Your task to perform on an android device: Go to ESPN.com Image 0: 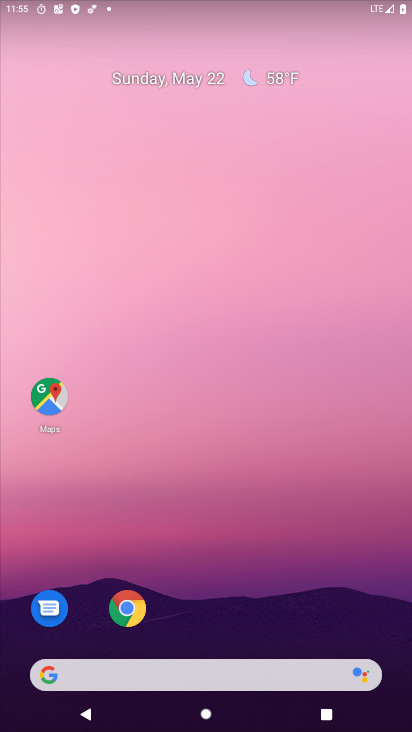
Step 0: click (139, 609)
Your task to perform on an android device: Go to ESPN.com Image 1: 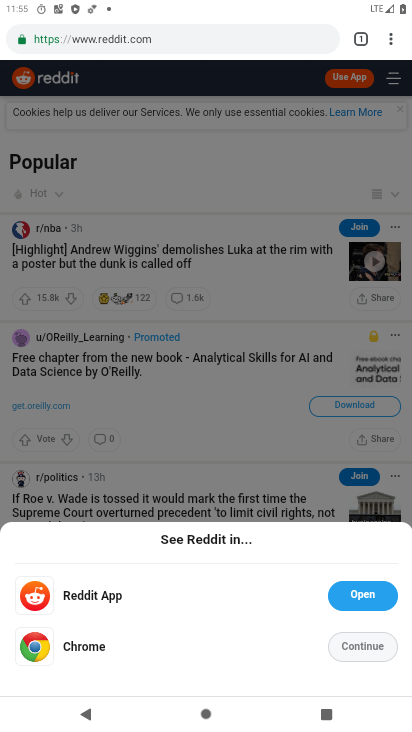
Step 1: click (177, 33)
Your task to perform on an android device: Go to ESPN.com Image 2: 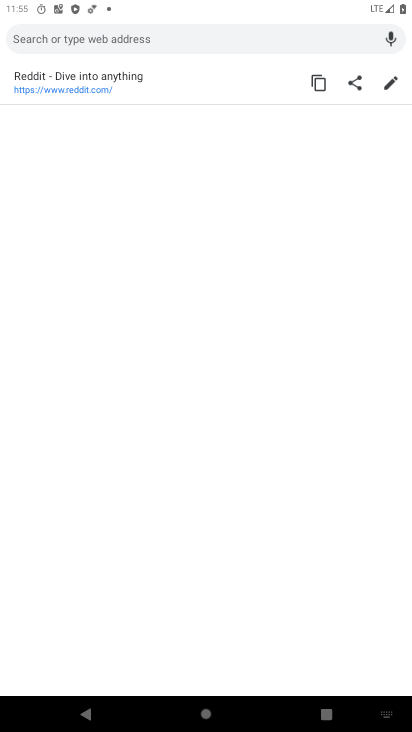
Step 2: type "ESPN.com"
Your task to perform on an android device: Go to ESPN.com Image 3: 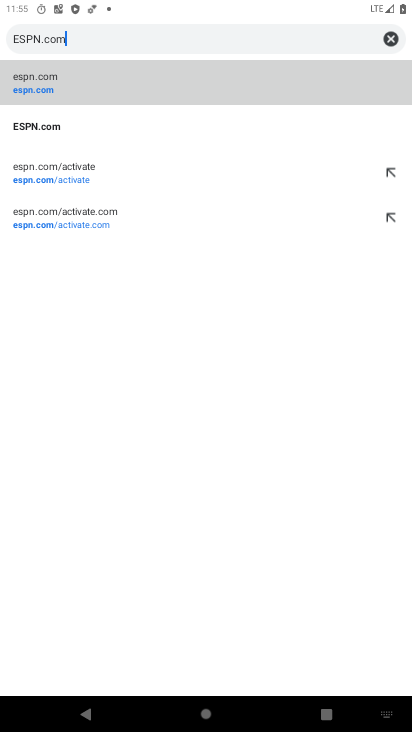
Step 3: click (23, 88)
Your task to perform on an android device: Go to ESPN.com Image 4: 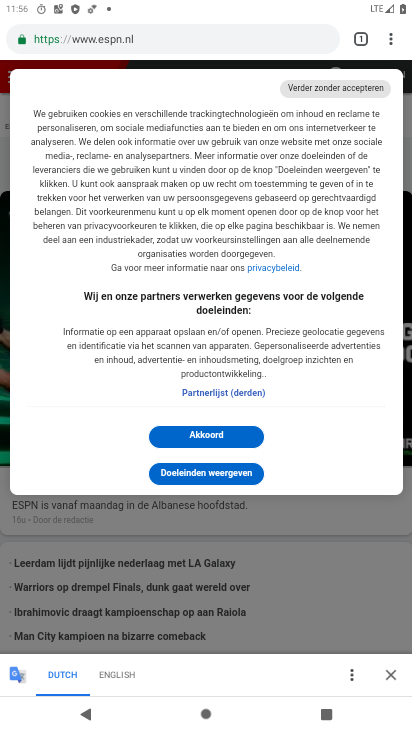
Step 4: task complete